Your task to perform on an android device: Go to eBay Image 0: 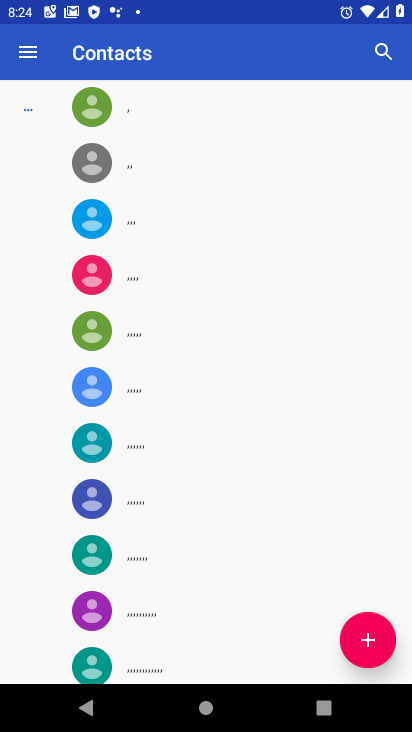
Step 0: press back button
Your task to perform on an android device: Go to eBay Image 1: 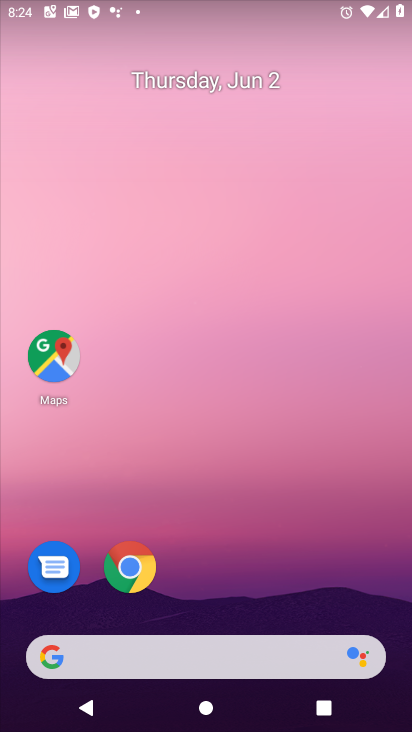
Step 1: drag from (256, 544) to (230, 149)
Your task to perform on an android device: Go to eBay Image 2: 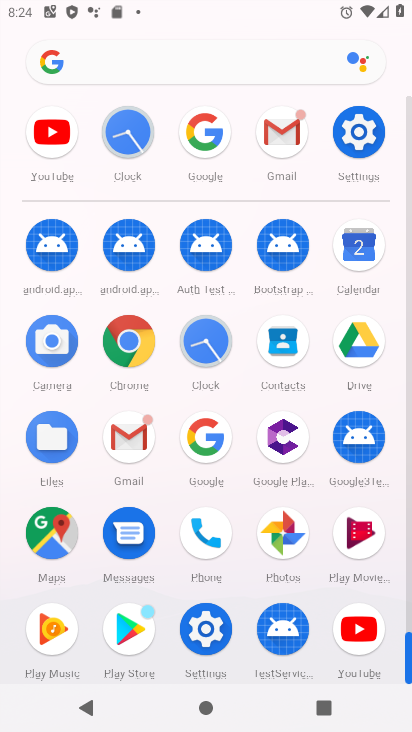
Step 2: click (201, 132)
Your task to perform on an android device: Go to eBay Image 3: 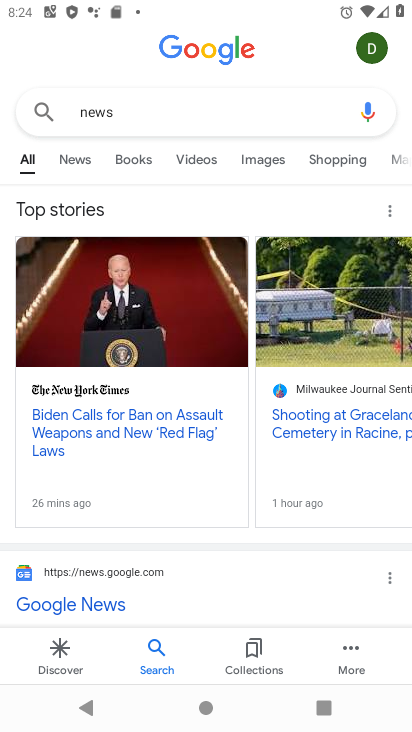
Step 3: click (209, 115)
Your task to perform on an android device: Go to eBay Image 4: 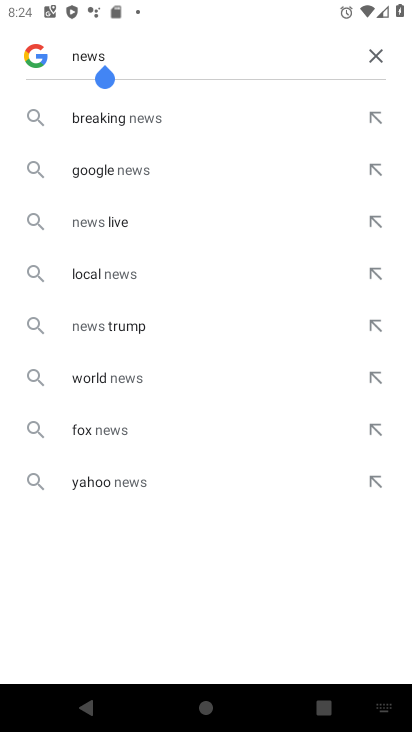
Step 4: click (375, 53)
Your task to perform on an android device: Go to eBay Image 5: 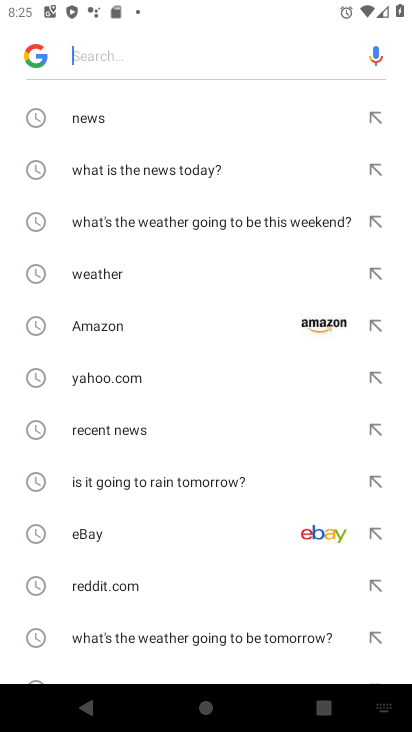
Step 5: type "eBay"
Your task to perform on an android device: Go to eBay Image 6: 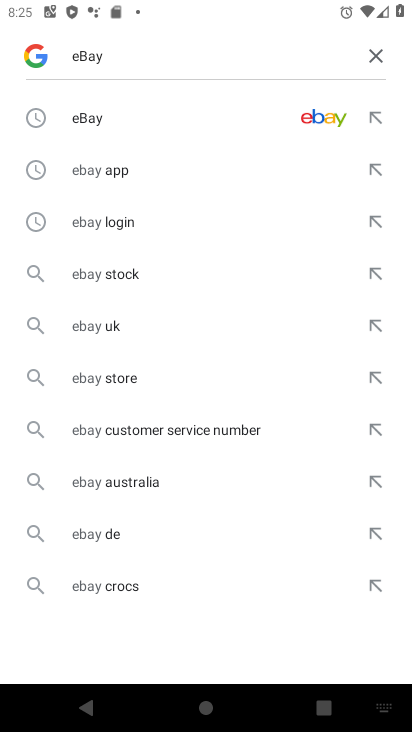
Step 6: click (82, 118)
Your task to perform on an android device: Go to eBay Image 7: 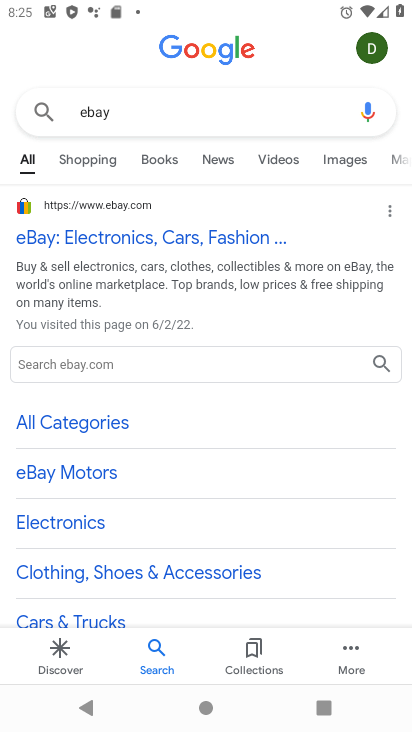
Step 7: click (93, 232)
Your task to perform on an android device: Go to eBay Image 8: 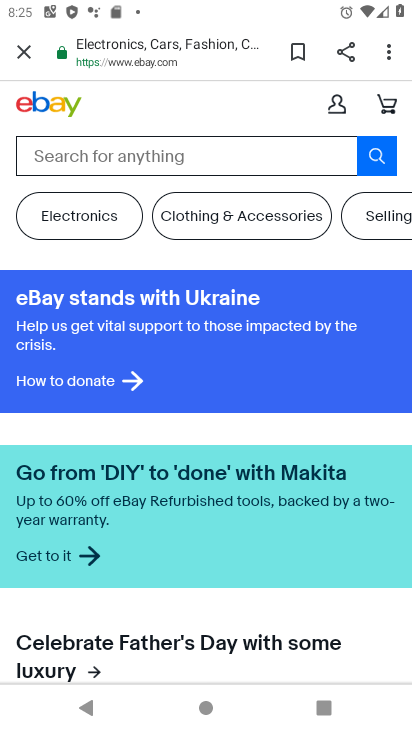
Step 8: task complete